Your task to perform on an android device: Set the phone to "Do not disturb". Image 0: 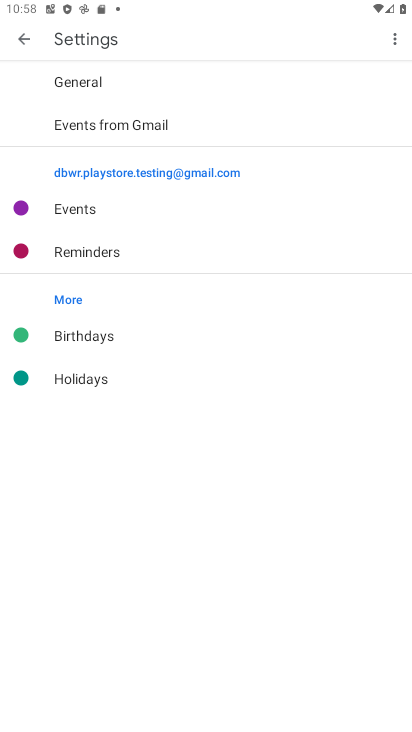
Step 0: press home button
Your task to perform on an android device: Set the phone to "Do not disturb". Image 1: 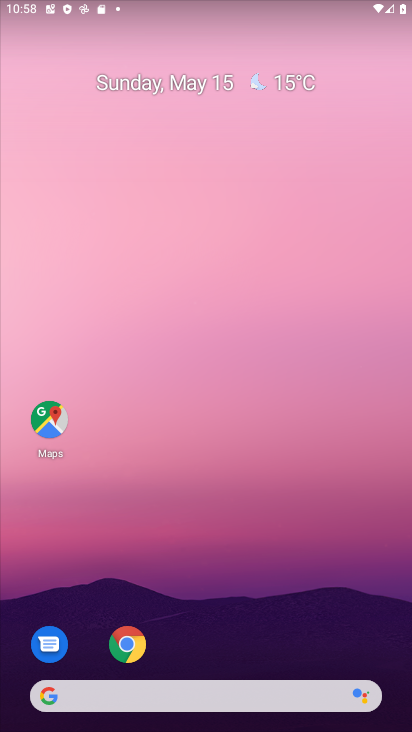
Step 1: drag from (144, 598) to (268, 291)
Your task to perform on an android device: Set the phone to "Do not disturb". Image 2: 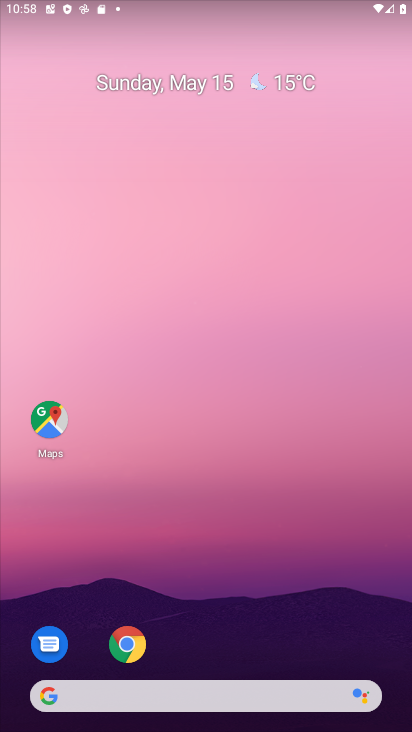
Step 2: drag from (182, 689) to (175, 319)
Your task to perform on an android device: Set the phone to "Do not disturb". Image 3: 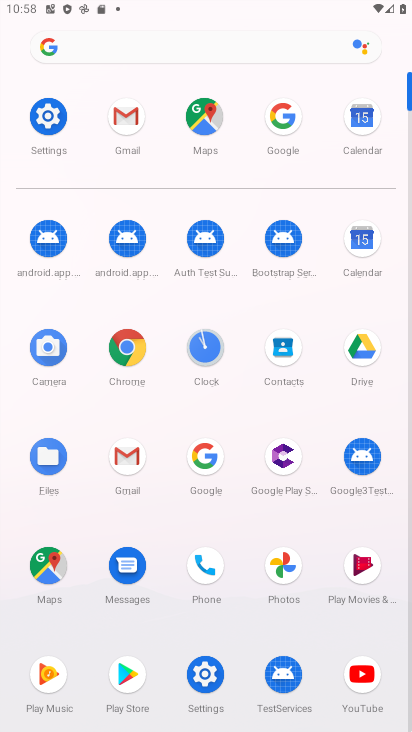
Step 3: click (31, 110)
Your task to perform on an android device: Set the phone to "Do not disturb". Image 4: 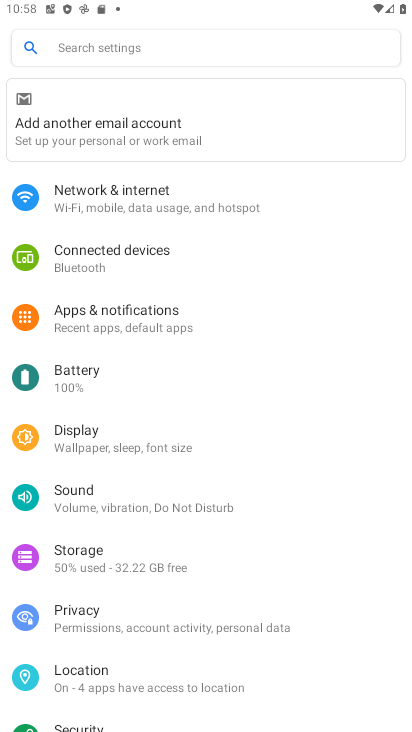
Step 4: click (153, 506)
Your task to perform on an android device: Set the phone to "Do not disturb". Image 5: 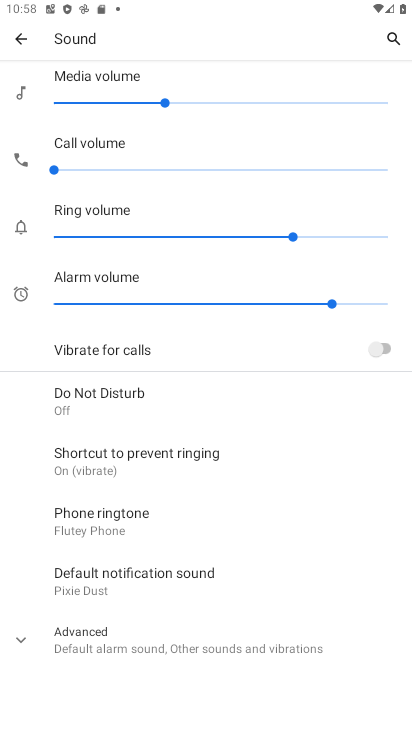
Step 5: drag from (204, 673) to (188, 402)
Your task to perform on an android device: Set the phone to "Do not disturb". Image 6: 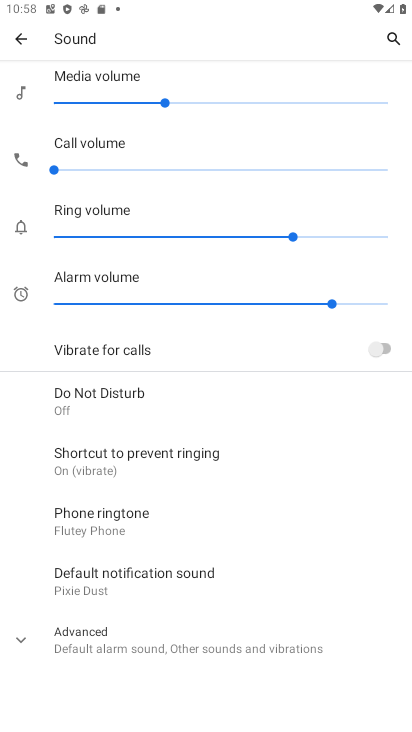
Step 6: drag from (190, 600) to (175, 334)
Your task to perform on an android device: Set the phone to "Do not disturb". Image 7: 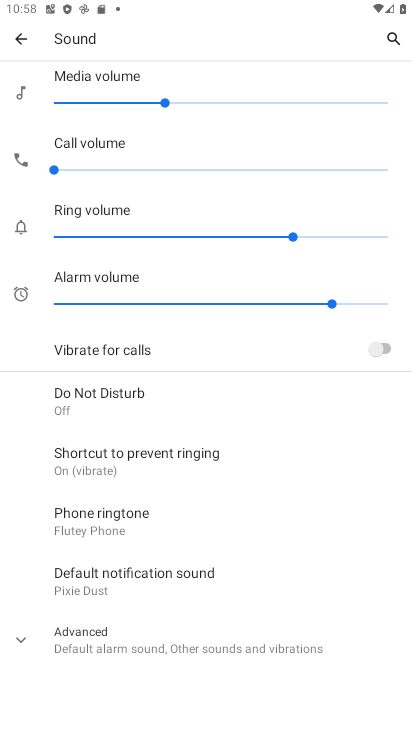
Step 7: click (106, 391)
Your task to perform on an android device: Set the phone to "Do not disturb". Image 8: 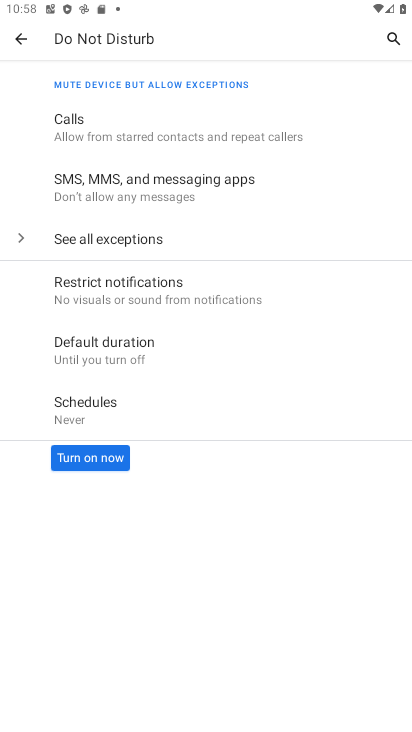
Step 8: click (83, 457)
Your task to perform on an android device: Set the phone to "Do not disturb". Image 9: 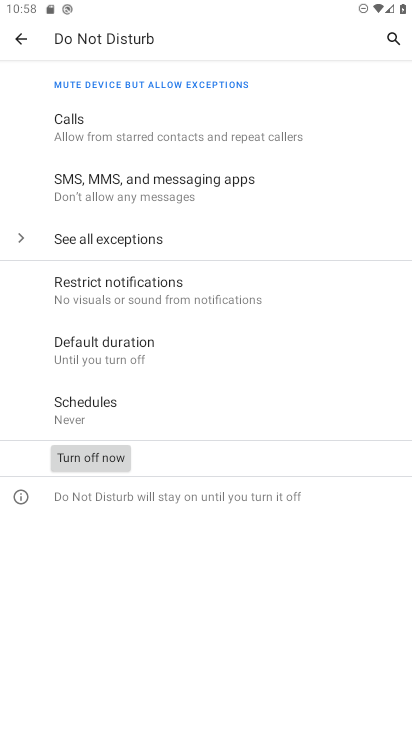
Step 9: task complete